Your task to perform on an android device: What's the weather going to be tomorrow? Image 0: 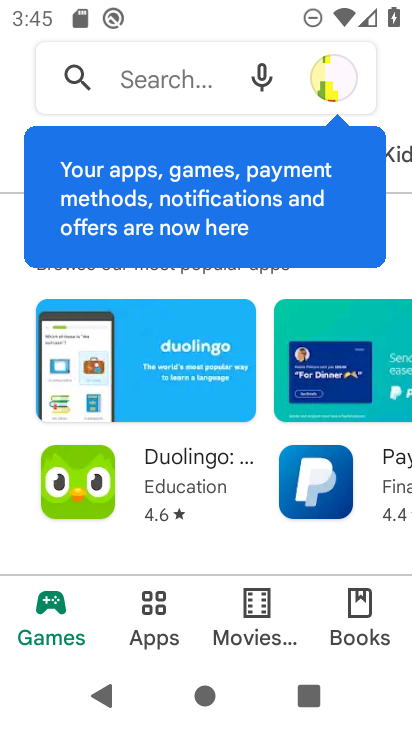
Step 0: press home button
Your task to perform on an android device: What's the weather going to be tomorrow? Image 1: 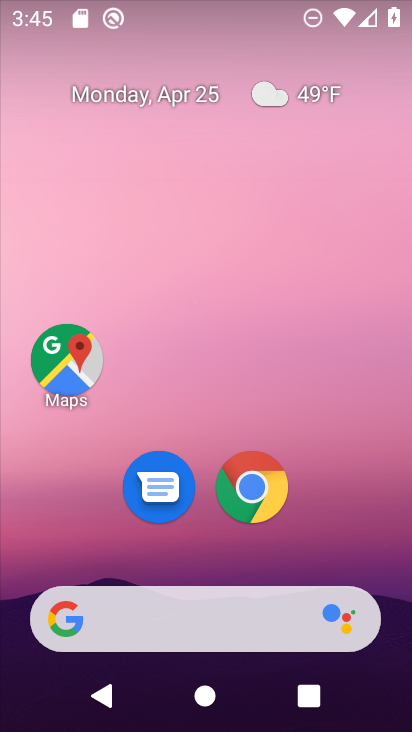
Step 1: click (316, 93)
Your task to perform on an android device: What's the weather going to be tomorrow? Image 2: 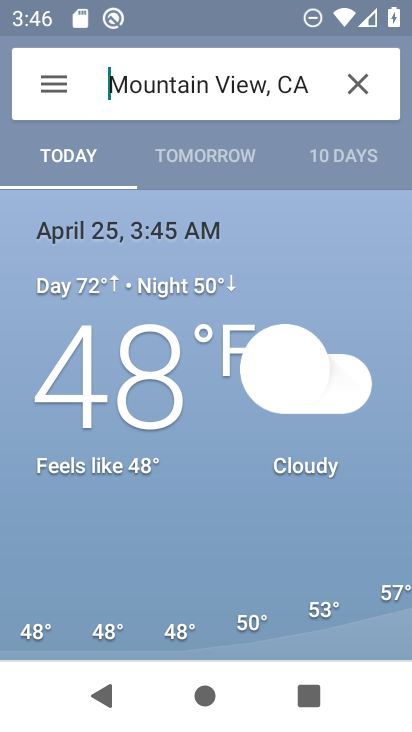
Step 2: click (186, 134)
Your task to perform on an android device: What's the weather going to be tomorrow? Image 3: 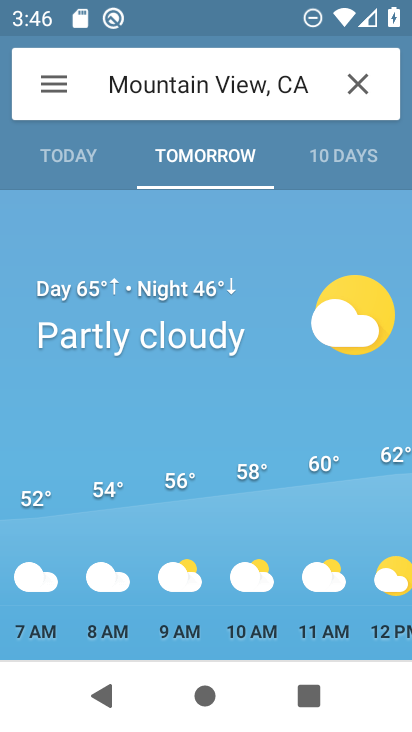
Step 3: task complete